Your task to perform on an android device: open sync settings in chrome Image 0: 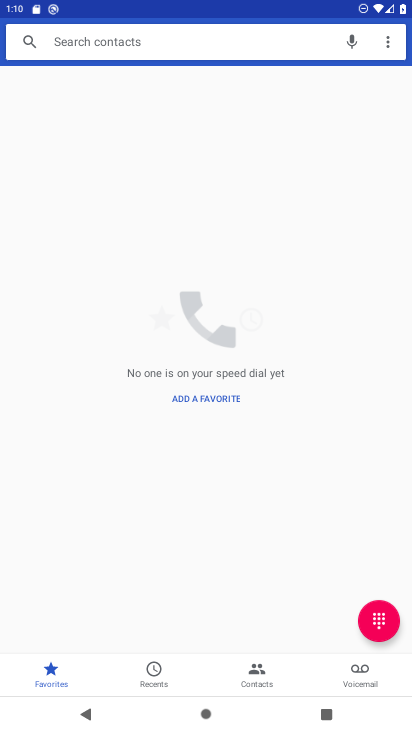
Step 0: press home button
Your task to perform on an android device: open sync settings in chrome Image 1: 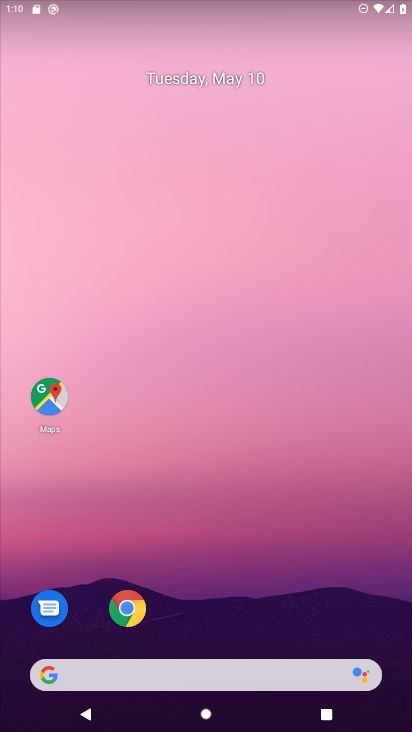
Step 1: drag from (348, 623) to (364, 148)
Your task to perform on an android device: open sync settings in chrome Image 2: 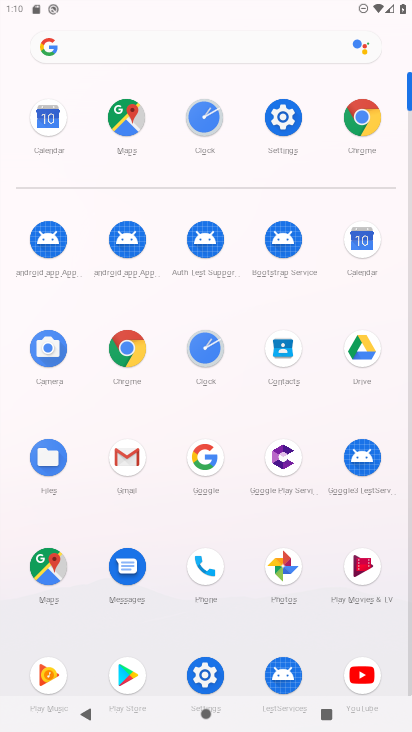
Step 2: click (134, 354)
Your task to perform on an android device: open sync settings in chrome Image 3: 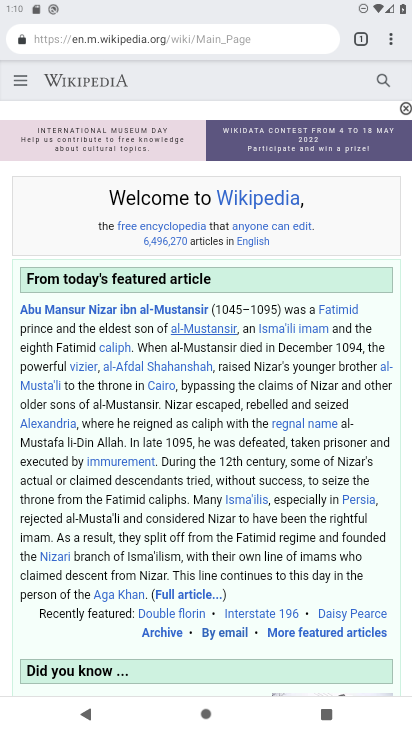
Step 3: drag from (388, 47) to (271, 466)
Your task to perform on an android device: open sync settings in chrome Image 4: 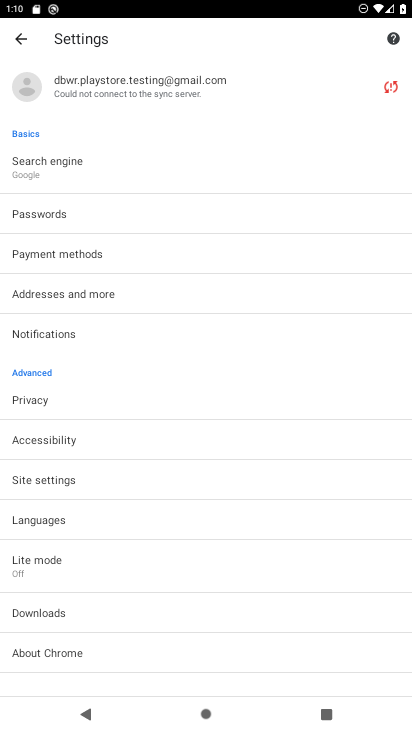
Step 4: click (81, 478)
Your task to perform on an android device: open sync settings in chrome Image 5: 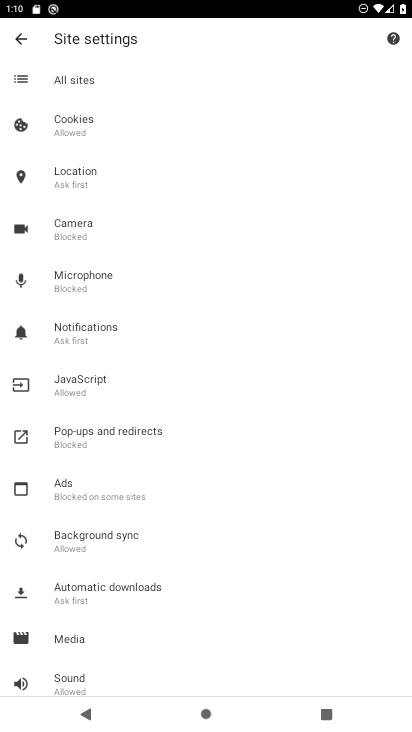
Step 5: drag from (178, 635) to (225, 375)
Your task to perform on an android device: open sync settings in chrome Image 6: 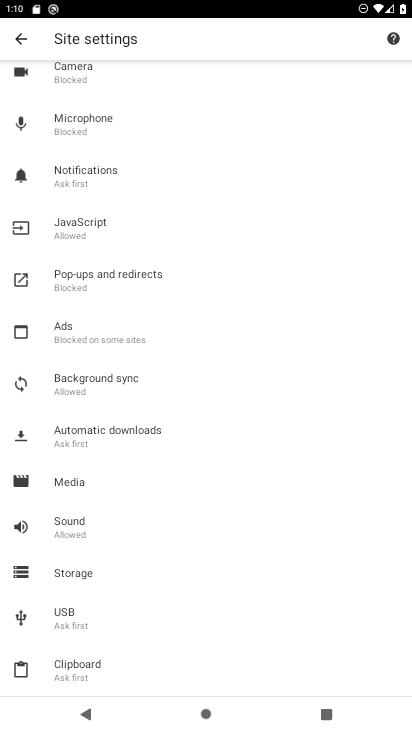
Step 6: click (139, 371)
Your task to perform on an android device: open sync settings in chrome Image 7: 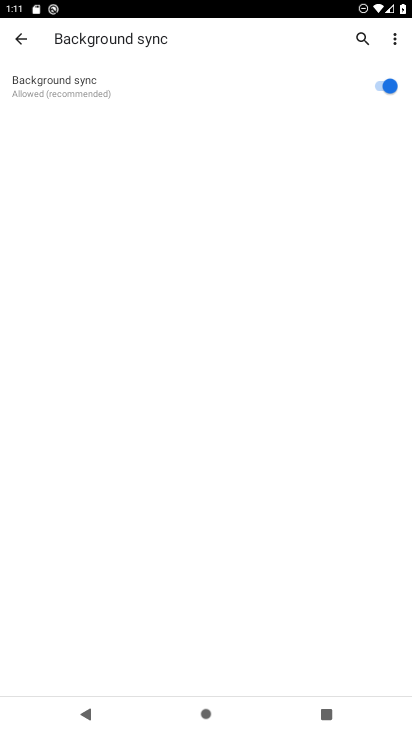
Step 7: task complete